Your task to perform on an android device: Search for the best Mexican restaurants Image 0: 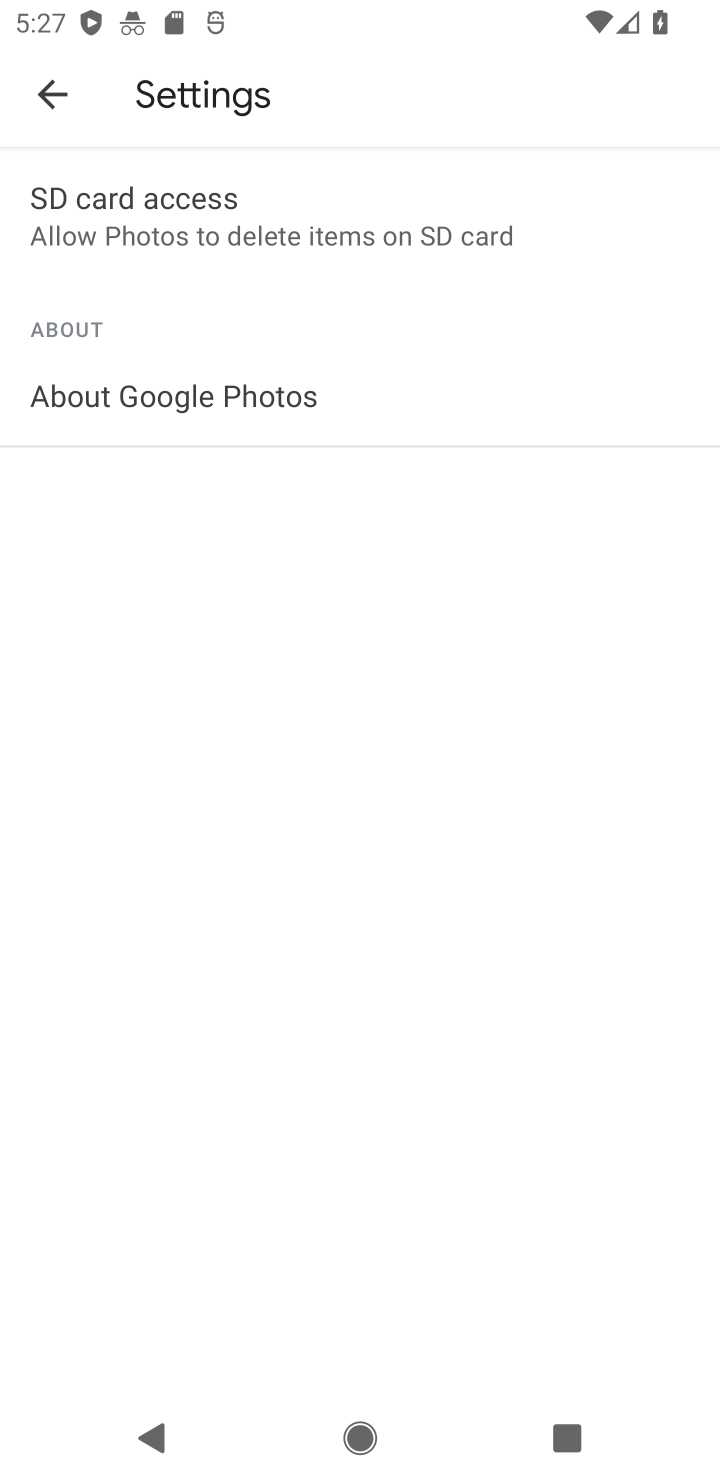
Step 0: press home button
Your task to perform on an android device: Search for the best Mexican restaurants Image 1: 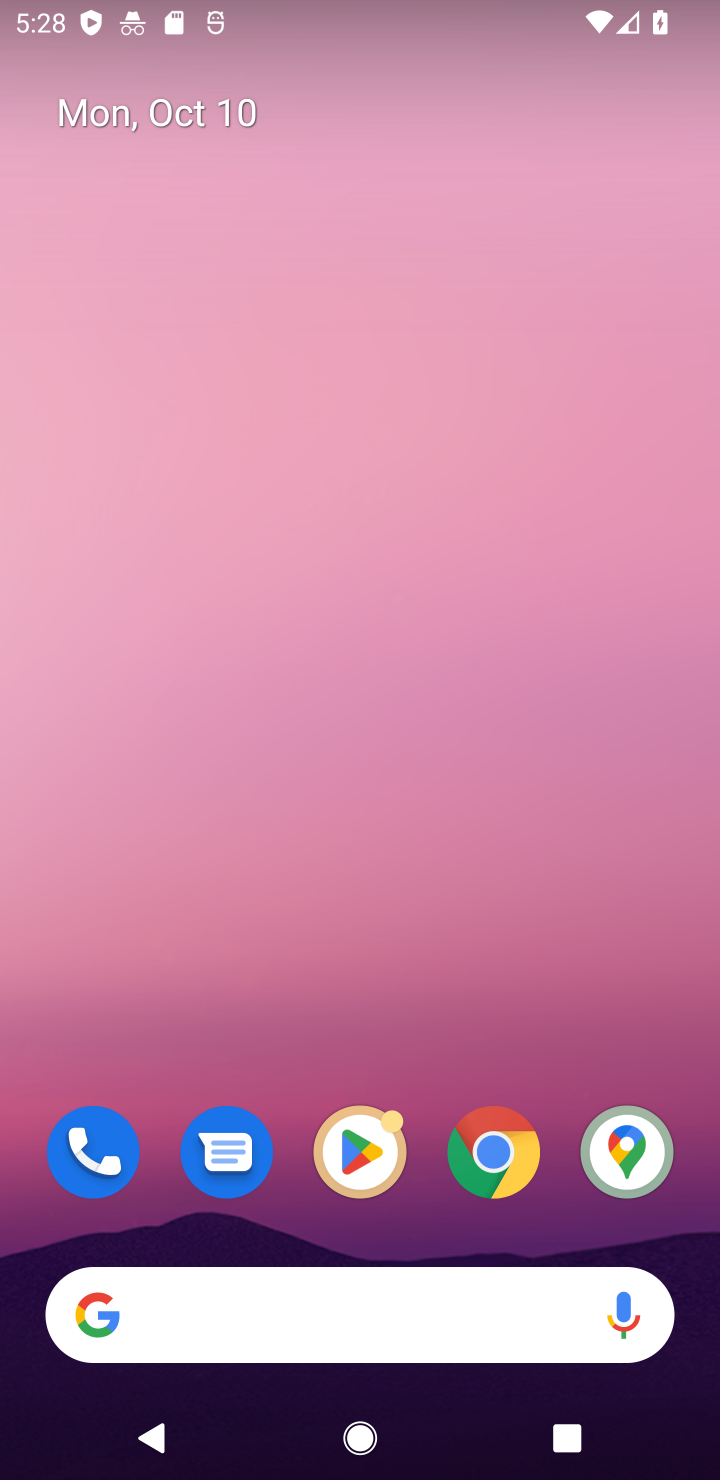
Step 1: click (628, 1145)
Your task to perform on an android device: Search for the best Mexican restaurants Image 2: 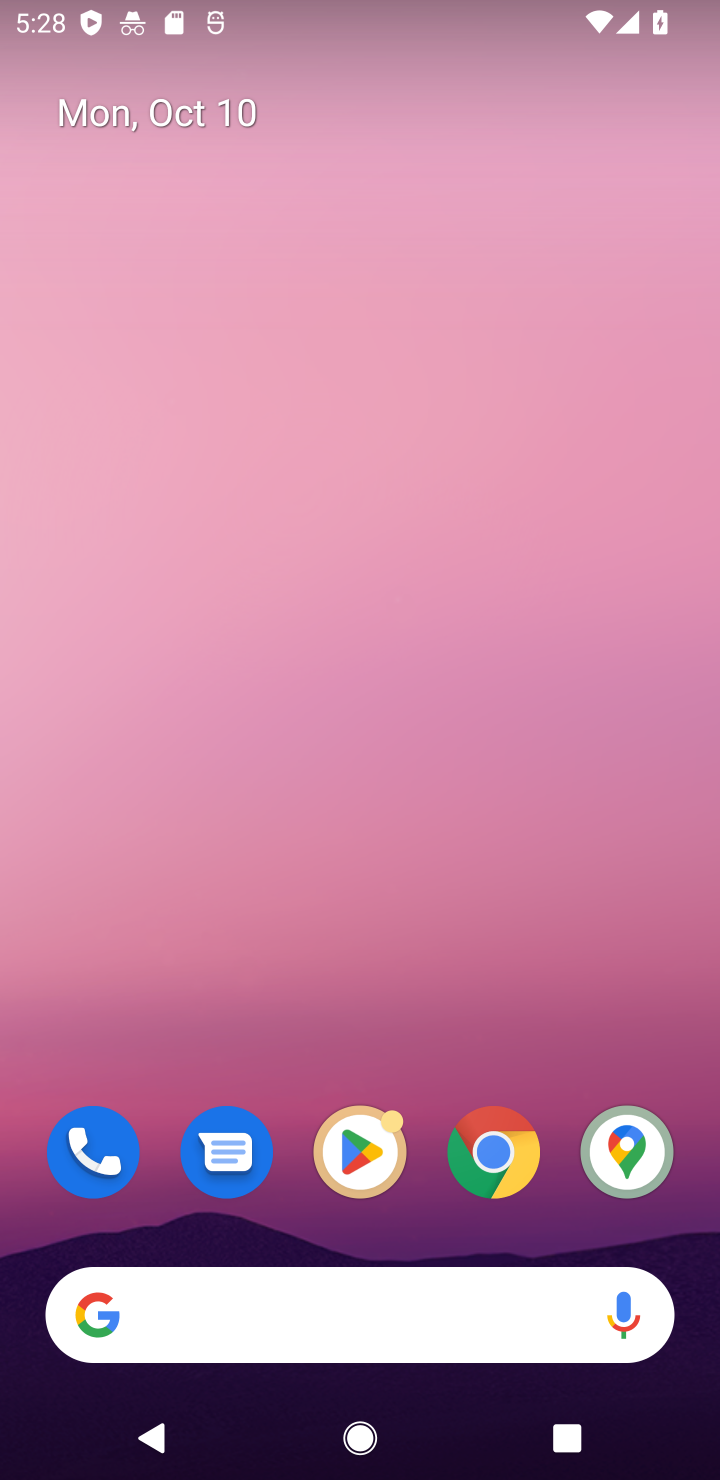
Step 2: click (629, 1148)
Your task to perform on an android device: Search for the best Mexican restaurants Image 3: 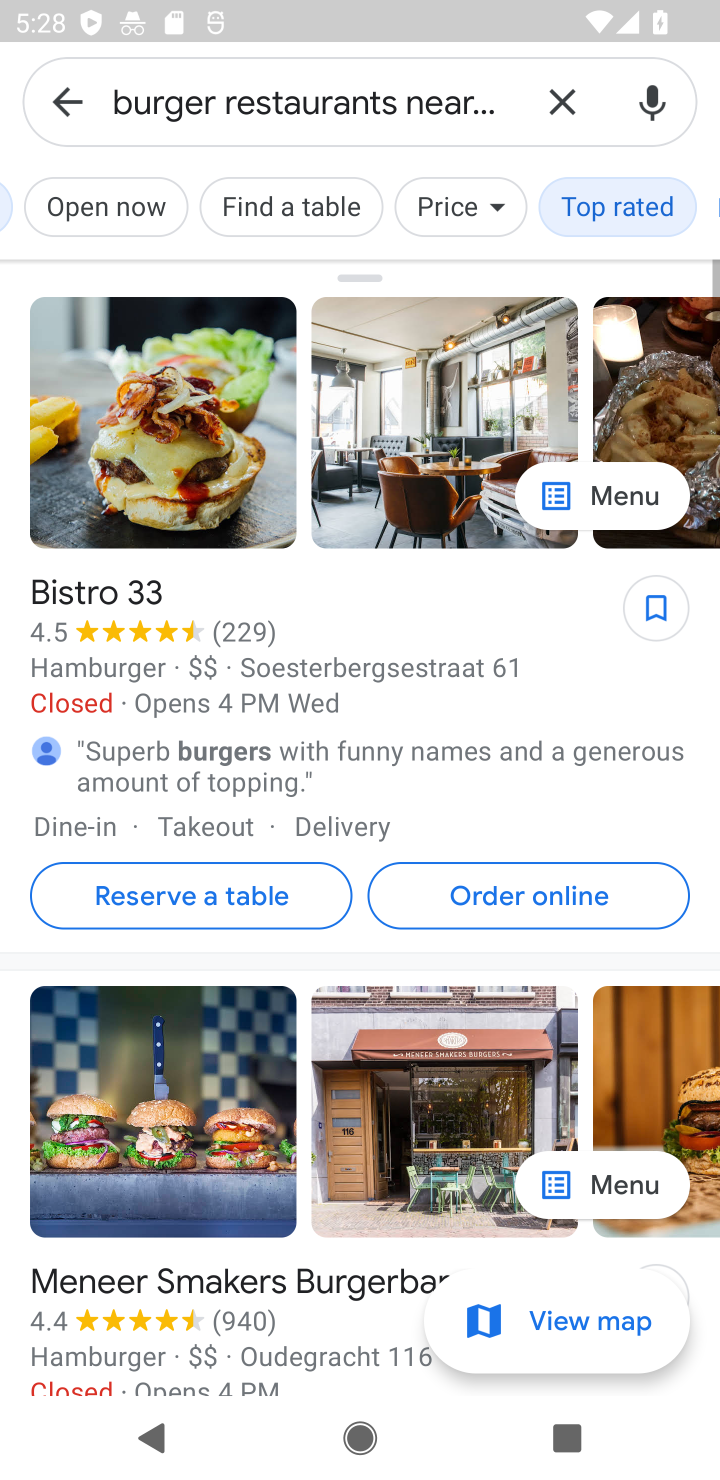
Step 3: click (547, 90)
Your task to perform on an android device: Search for the best Mexican restaurants Image 4: 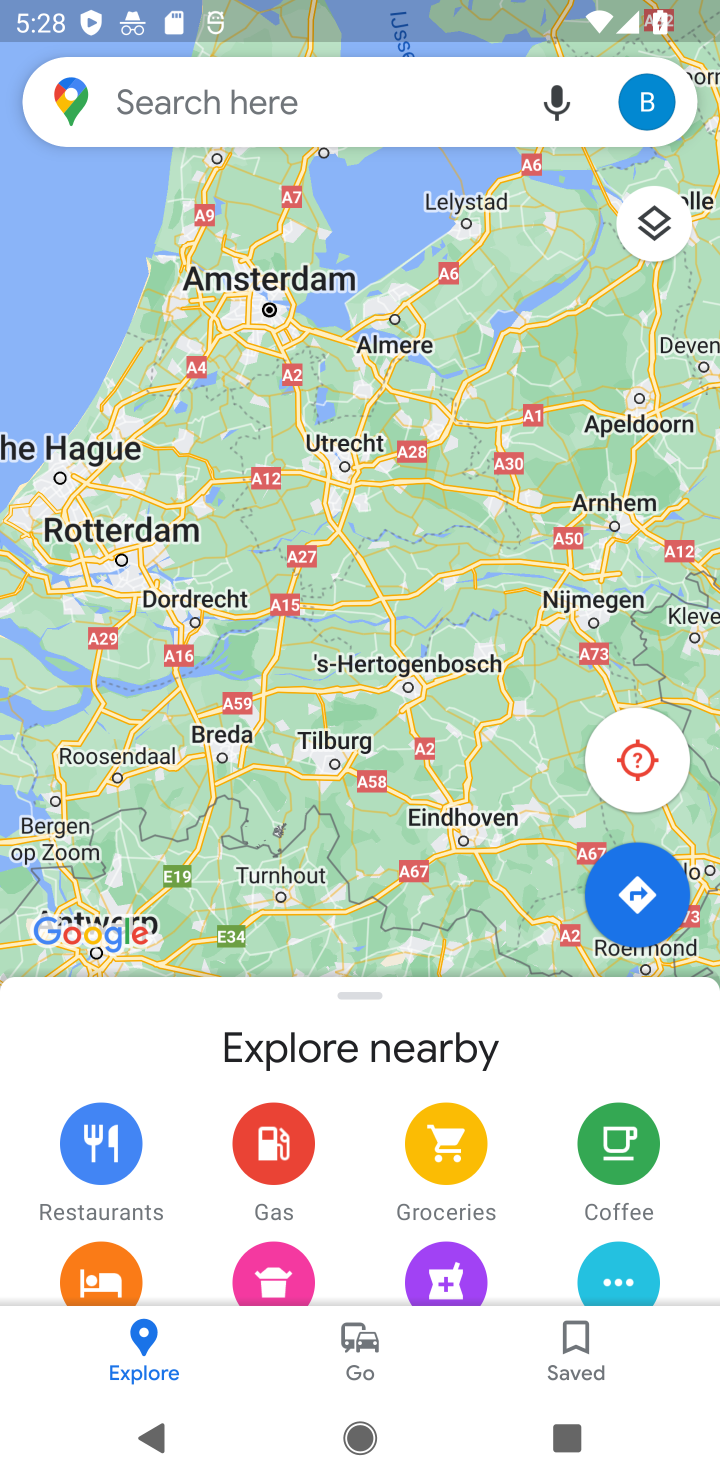
Step 4: click (375, 102)
Your task to perform on an android device: Search for the best Mexican restaurants Image 5: 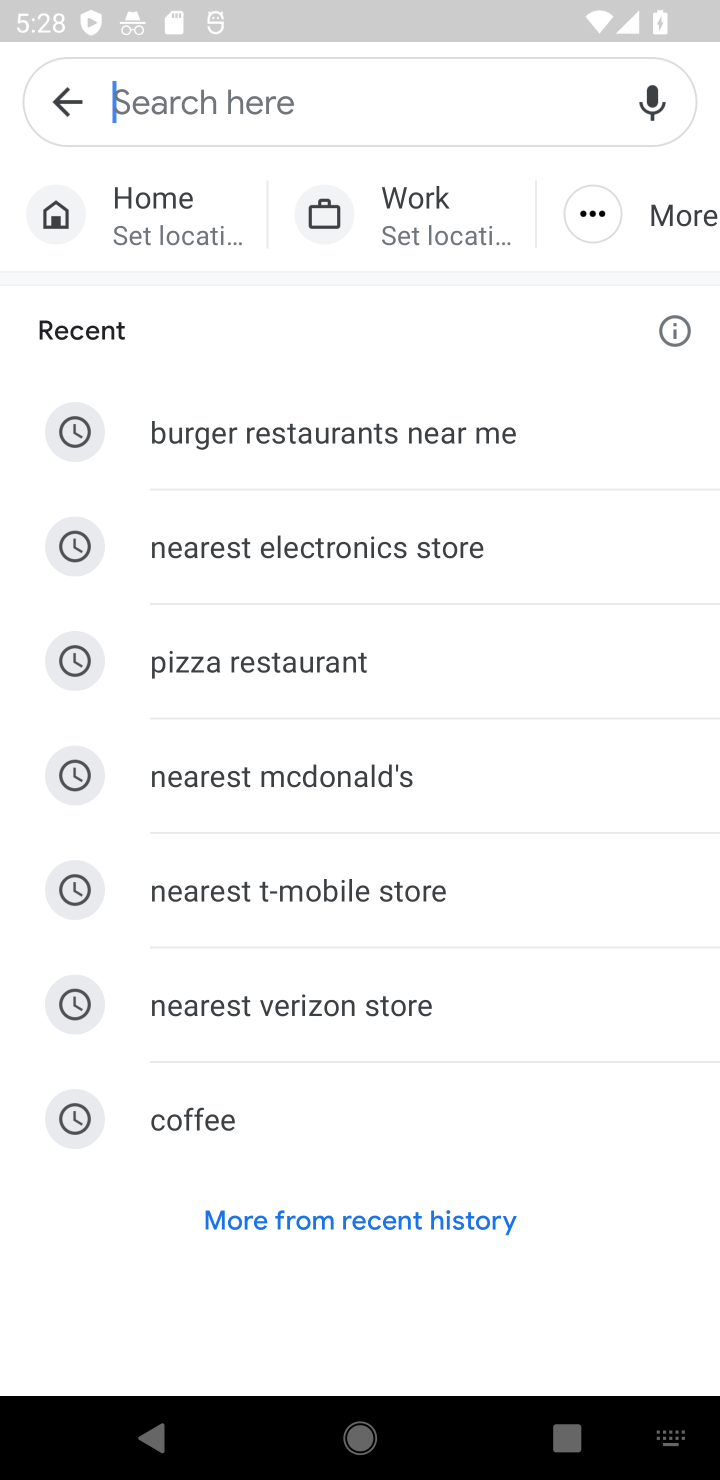
Step 5: type "Mexican restaurants"
Your task to perform on an android device: Search for the best Mexican restaurants Image 6: 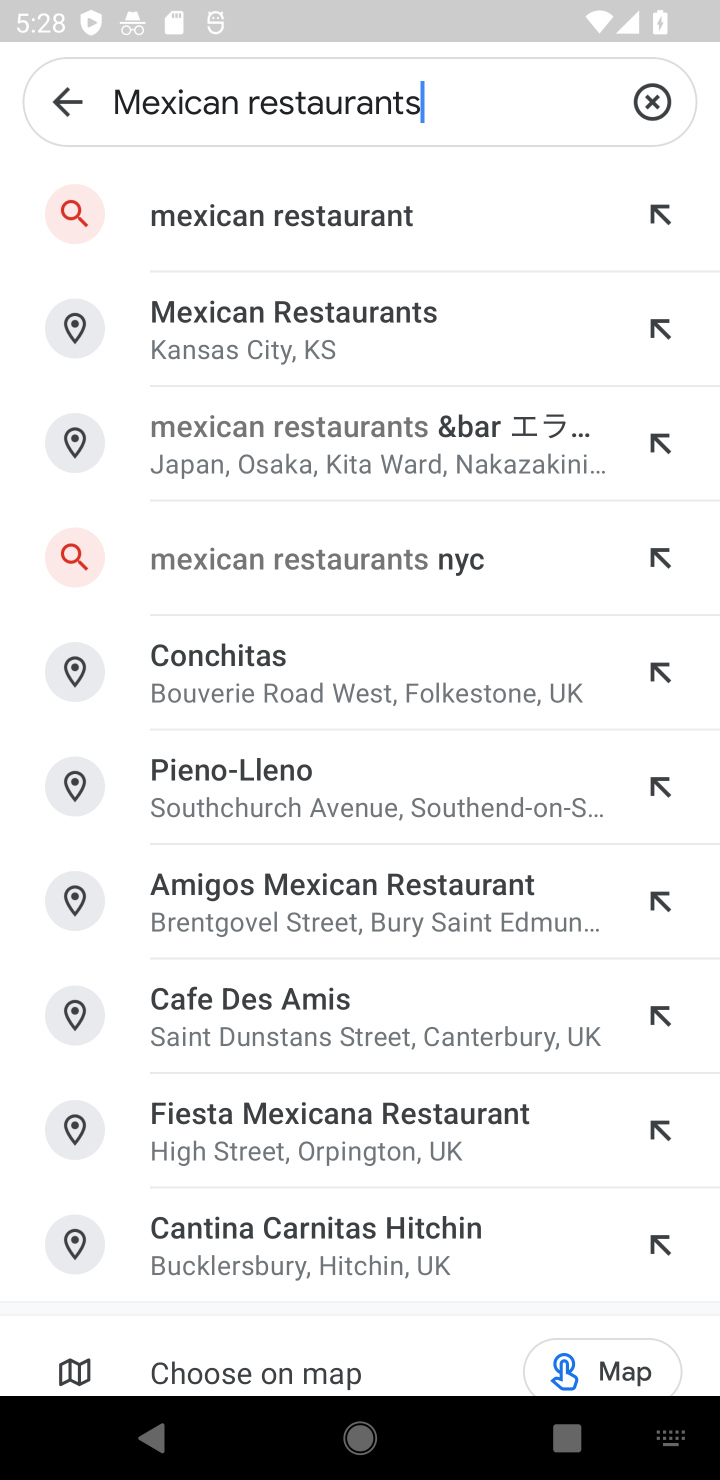
Step 6: click (400, 208)
Your task to perform on an android device: Search for the best Mexican restaurants Image 7: 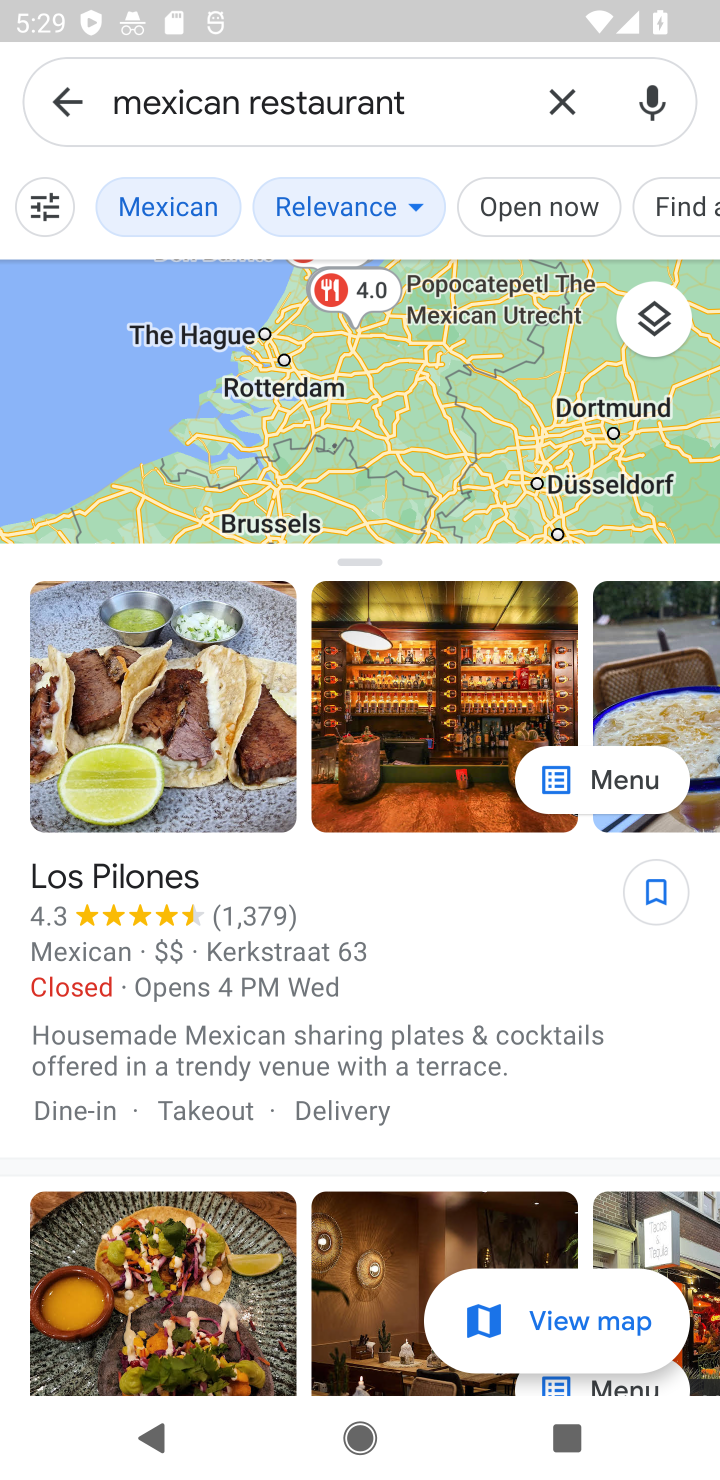
Step 7: task complete